Your task to perform on an android device: find snoozed emails in the gmail app Image 0: 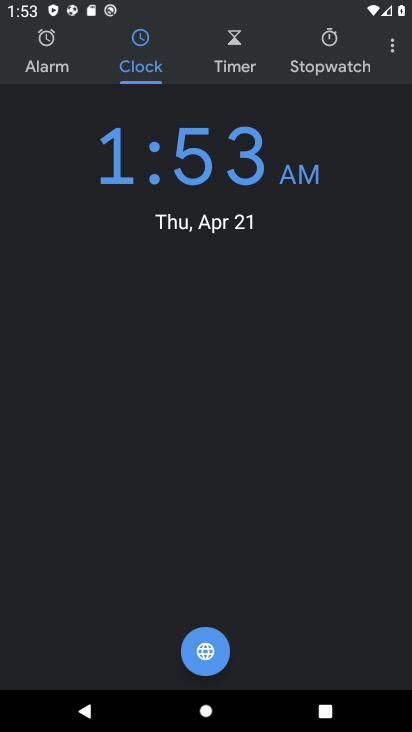
Step 0: press home button
Your task to perform on an android device: find snoozed emails in the gmail app Image 1: 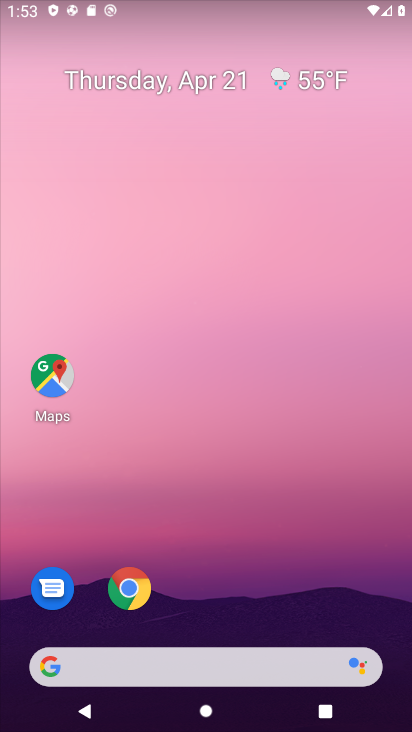
Step 1: drag from (276, 609) to (290, 90)
Your task to perform on an android device: find snoozed emails in the gmail app Image 2: 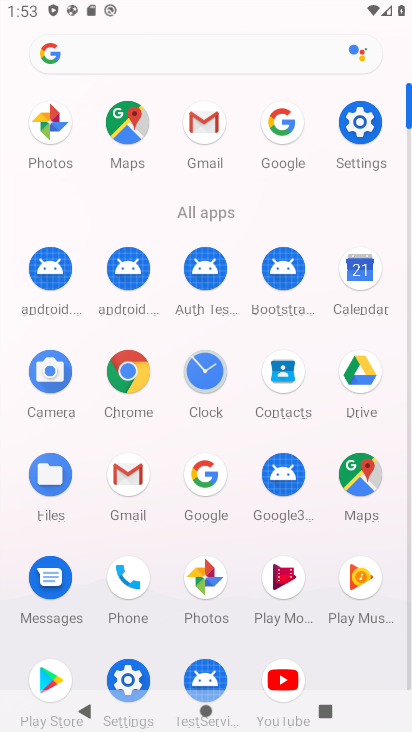
Step 2: click (200, 127)
Your task to perform on an android device: find snoozed emails in the gmail app Image 3: 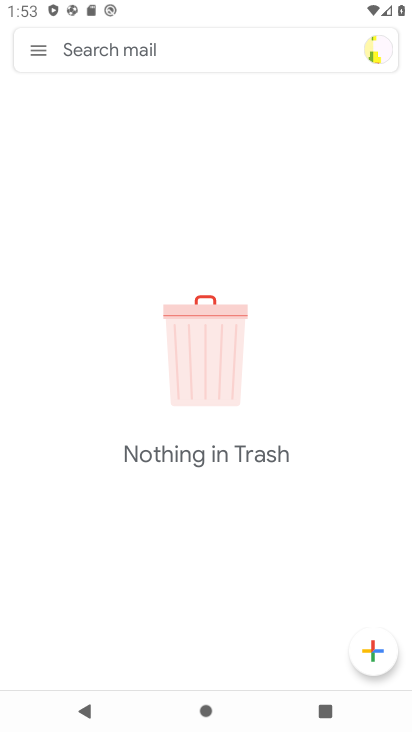
Step 3: click (42, 45)
Your task to perform on an android device: find snoozed emails in the gmail app Image 4: 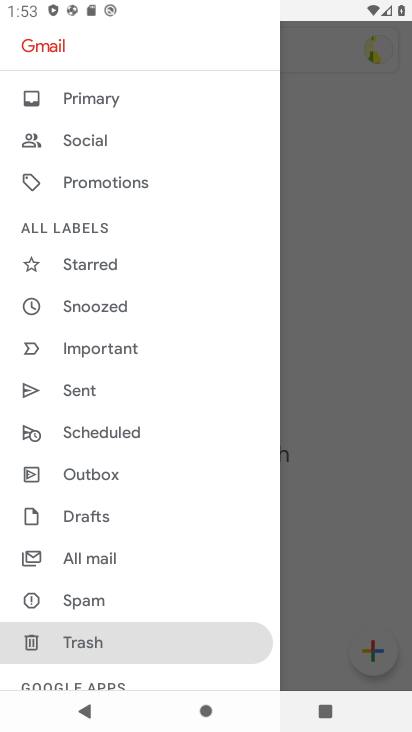
Step 4: click (147, 310)
Your task to perform on an android device: find snoozed emails in the gmail app Image 5: 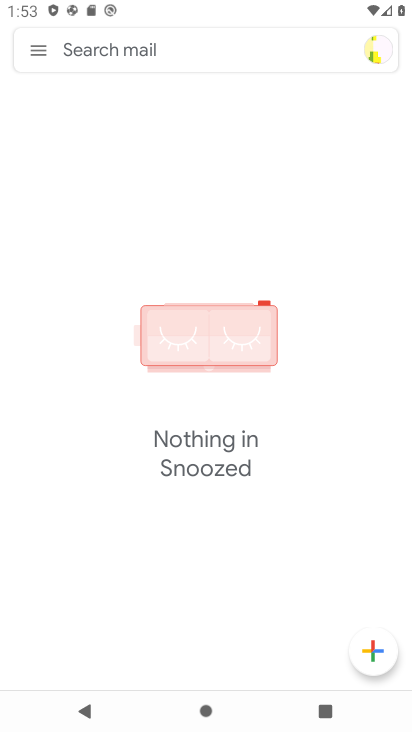
Step 5: task complete